Your task to perform on an android device: set the stopwatch Image 0: 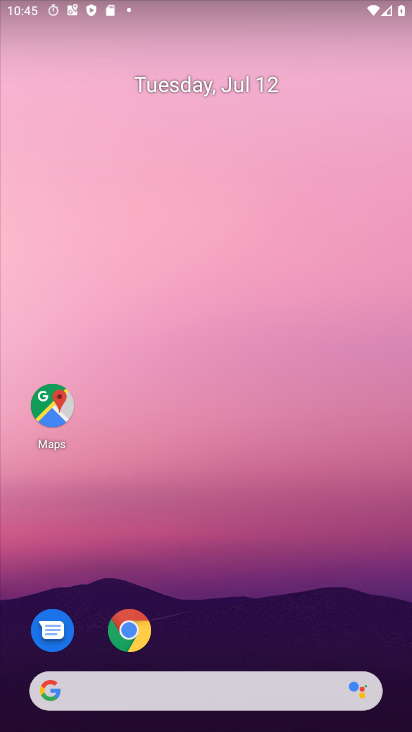
Step 0: drag from (219, 638) to (219, 113)
Your task to perform on an android device: set the stopwatch Image 1: 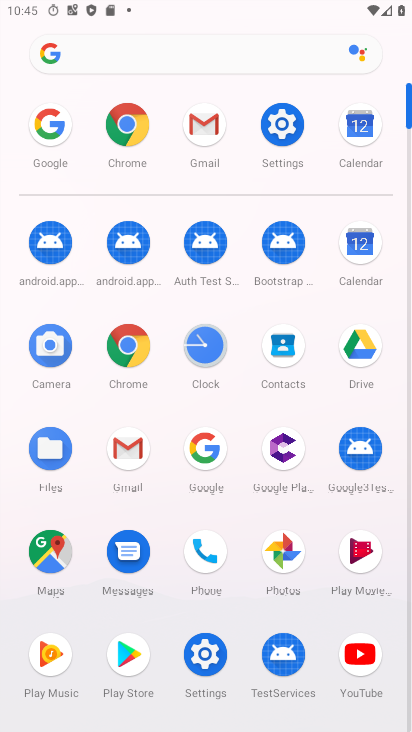
Step 1: click (209, 345)
Your task to perform on an android device: set the stopwatch Image 2: 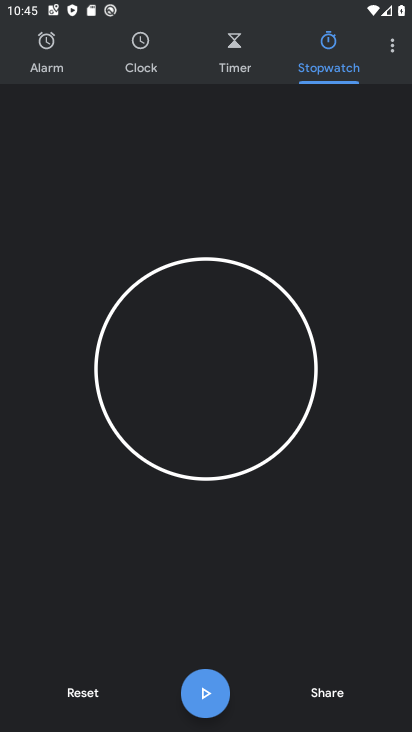
Step 2: click (203, 690)
Your task to perform on an android device: set the stopwatch Image 3: 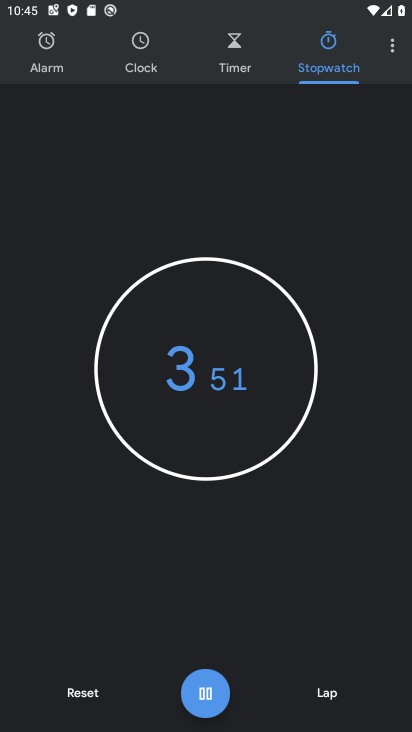
Step 3: click (202, 690)
Your task to perform on an android device: set the stopwatch Image 4: 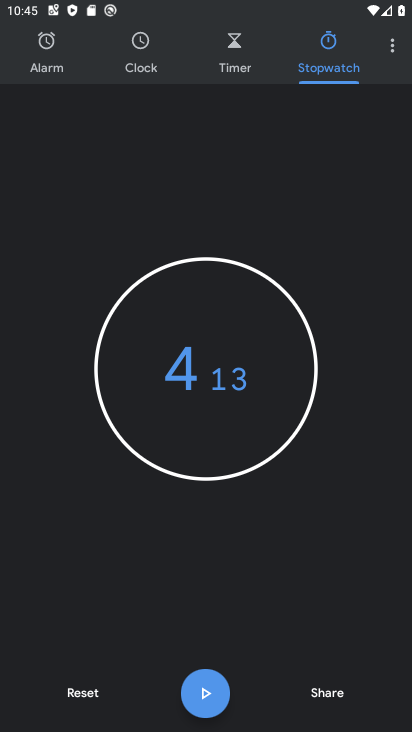
Step 4: task complete